Your task to perform on an android device: Open privacy settings Image 0: 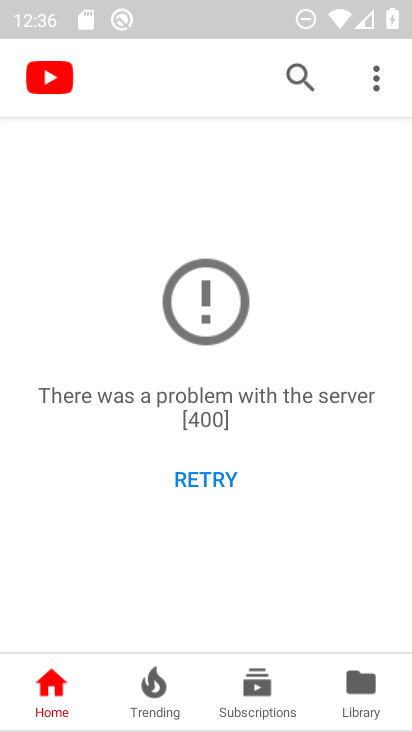
Step 0: press home button
Your task to perform on an android device: Open privacy settings Image 1: 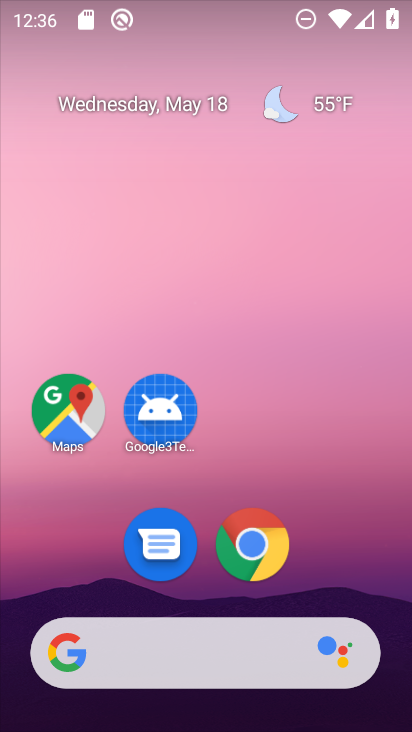
Step 1: drag from (198, 595) to (242, 185)
Your task to perform on an android device: Open privacy settings Image 2: 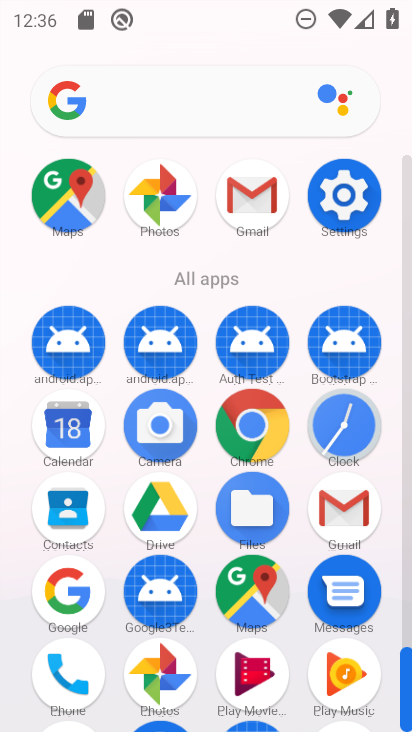
Step 2: click (341, 209)
Your task to perform on an android device: Open privacy settings Image 3: 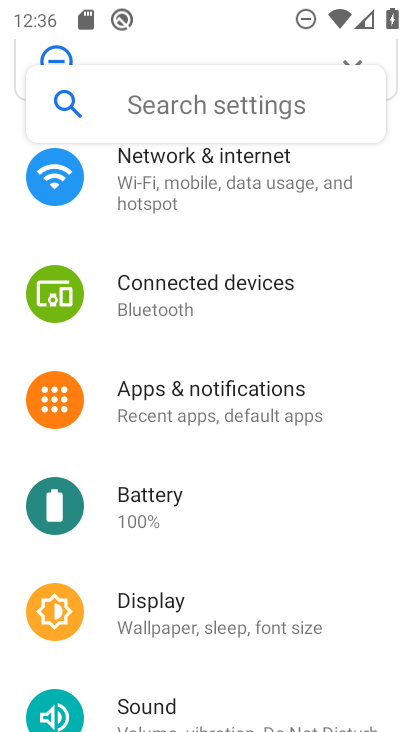
Step 3: drag from (138, 612) to (220, 379)
Your task to perform on an android device: Open privacy settings Image 4: 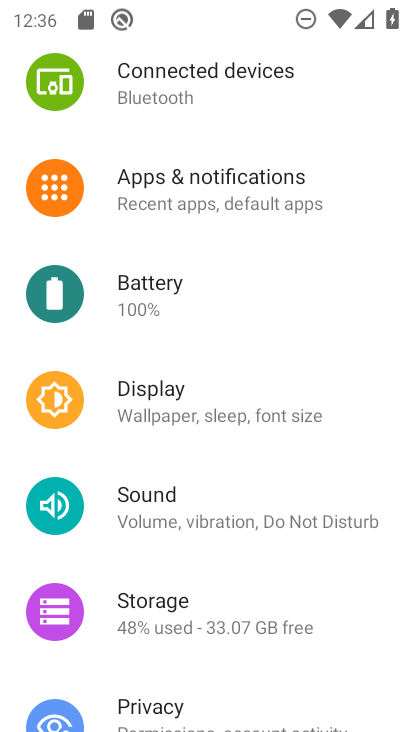
Step 4: drag from (168, 610) to (228, 383)
Your task to perform on an android device: Open privacy settings Image 5: 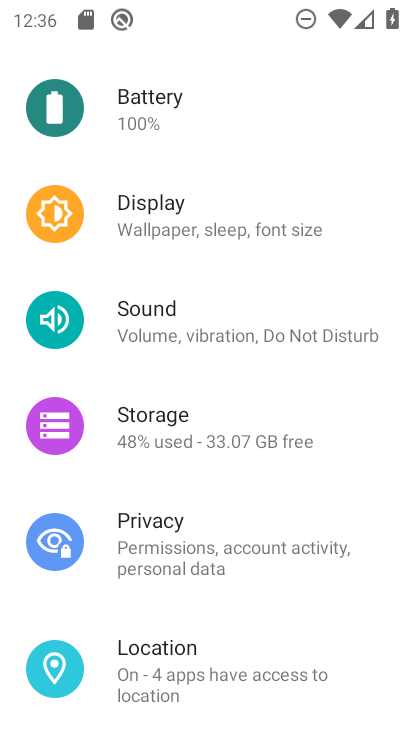
Step 5: click (156, 551)
Your task to perform on an android device: Open privacy settings Image 6: 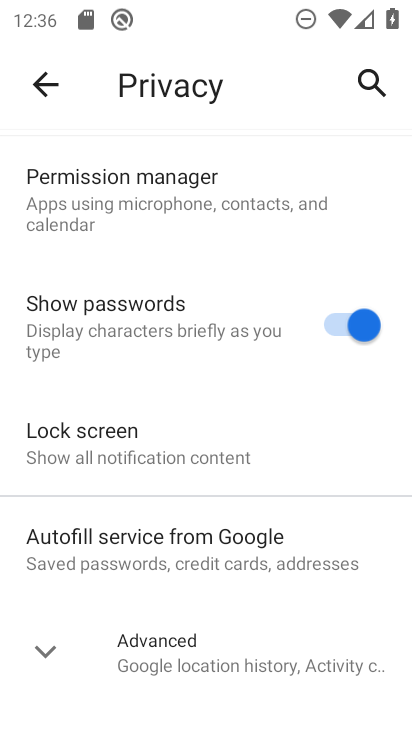
Step 6: task complete